Your task to perform on an android device: read, delete, or share a saved page in the chrome app Image 0: 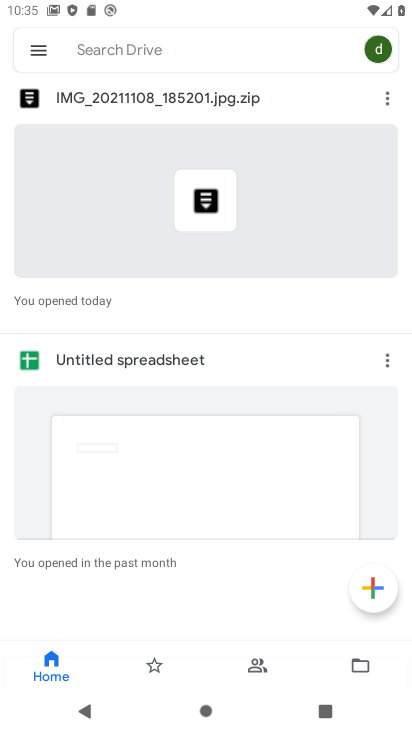
Step 0: press home button
Your task to perform on an android device: read, delete, or share a saved page in the chrome app Image 1: 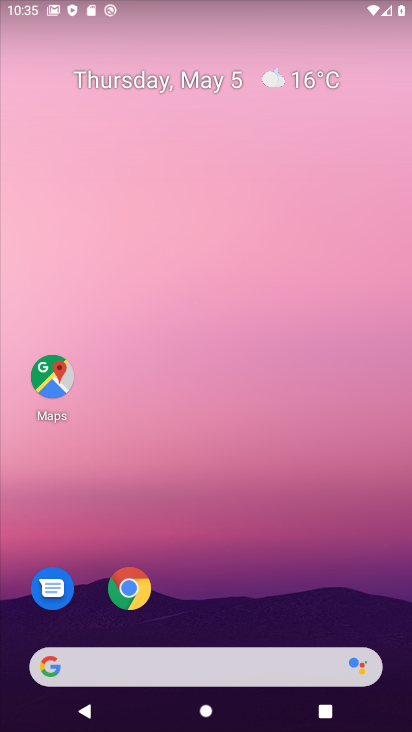
Step 1: click (137, 586)
Your task to perform on an android device: read, delete, or share a saved page in the chrome app Image 2: 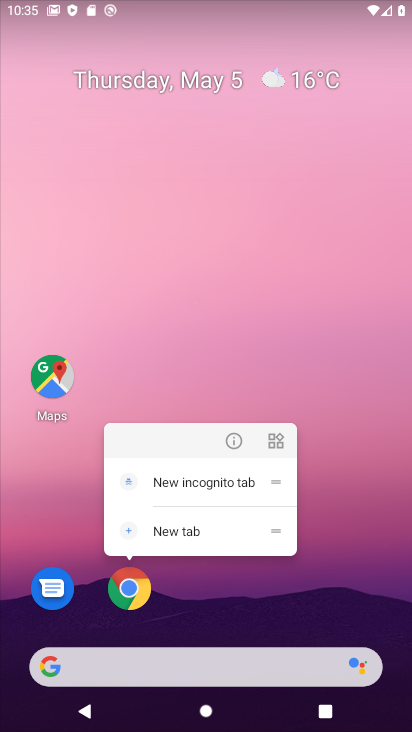
Step 2: click (139, 578)
Your task to perform on an android device: read, delete, or share a saved page in the chrome app Image 3: 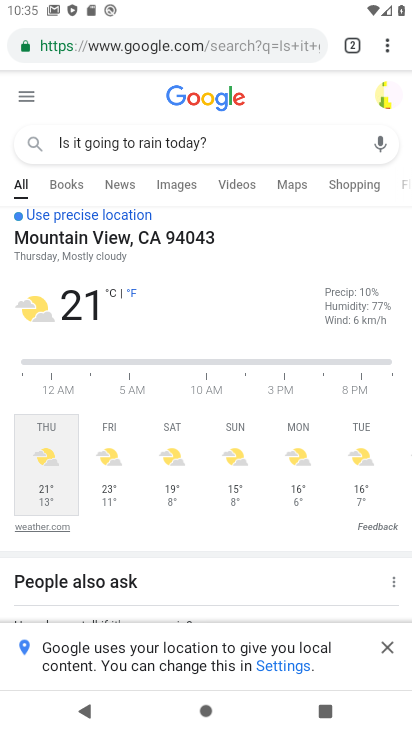
Step 3: drag from (384, 43) to (249, 293)
Your task to perform on an android device: read, delete, or share a saved page in the chrome app Image 4: 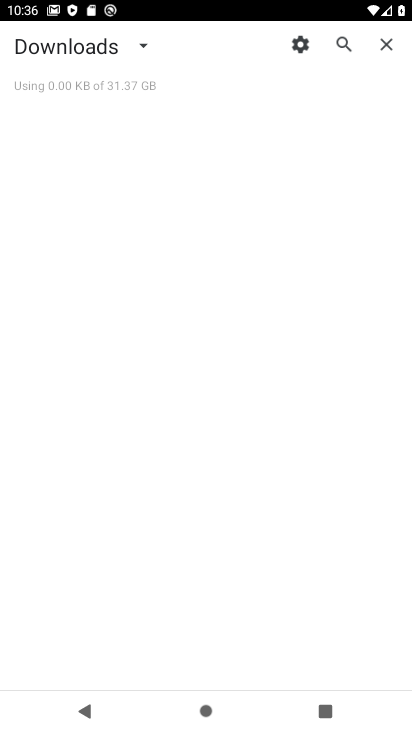
Step 4: click (137, 55)
Your task to perform on an android device: read, delete, or share a saved page in the chrome app Image 5: 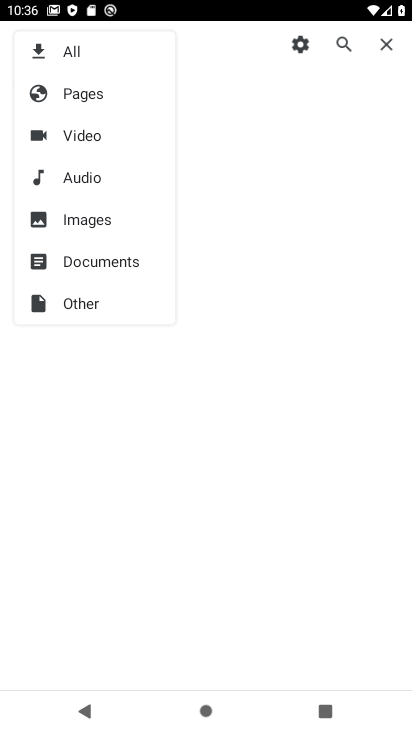
Step 5: click (75, 112)
Your task to perform on an android device: read, delete, or share a saved page in the chrome app Image 6: 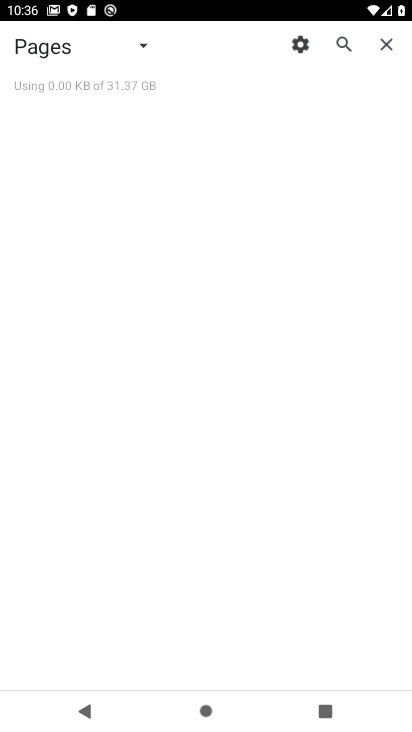
Step 6: task complete